Your task to perform on an android device: Show me productivity apps on the Play Store Image 0: 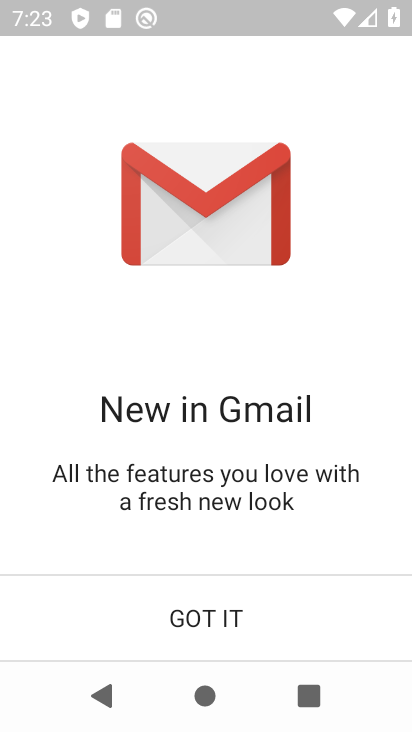
Step 0: press home button
Your task to perform on an android device: Show me productivity apps on the Play Store Image 1: 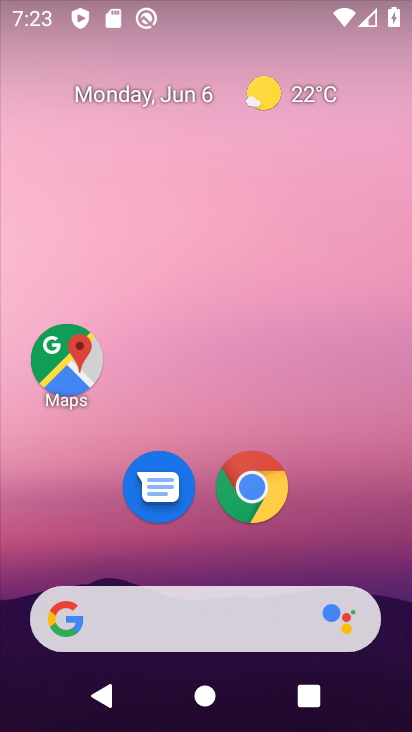
Step 1: drag from (392, 623) to (293, 31)
Your task to perform on an android device: Show me productivity apps on the Play Store Image 2: 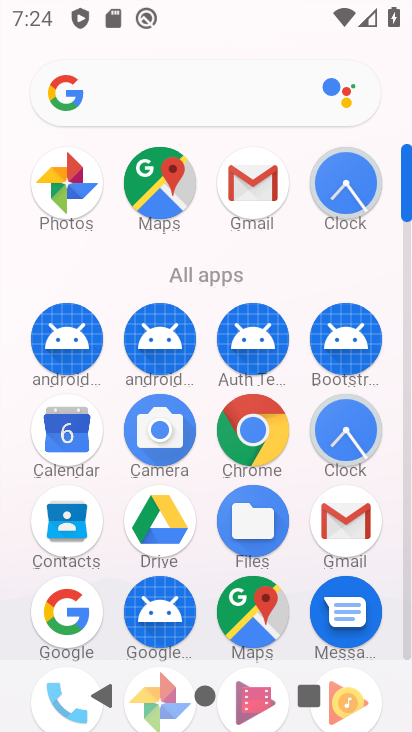
Step 2: drag from (205, 641) to (180, 228)
Your task to perform on an android device: Show me productivity apps on the Play Store Image 3: 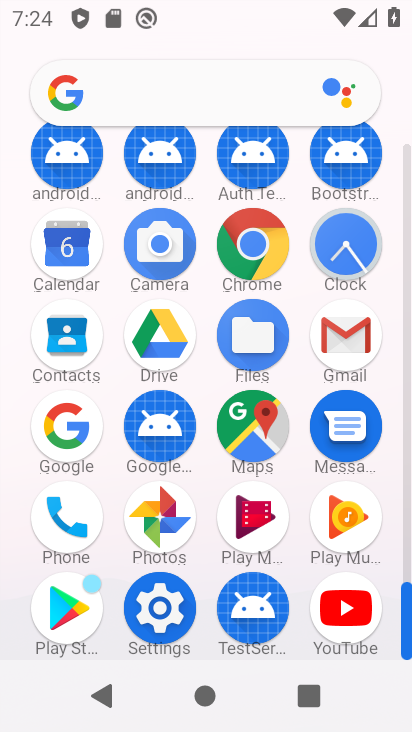
Step 3: click (63, 613)
Your task to perform on an android device: Show me productivity apps on the Play Store Image 4: 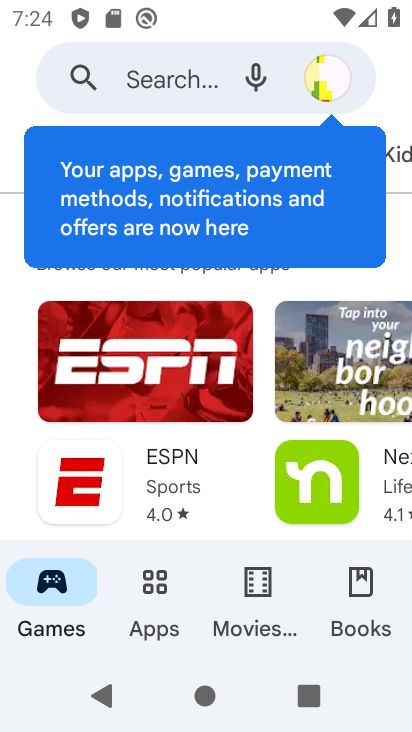
Step 4: task complete